Your task to perform on an android device: search for starred emails in the gmail app Image 0: 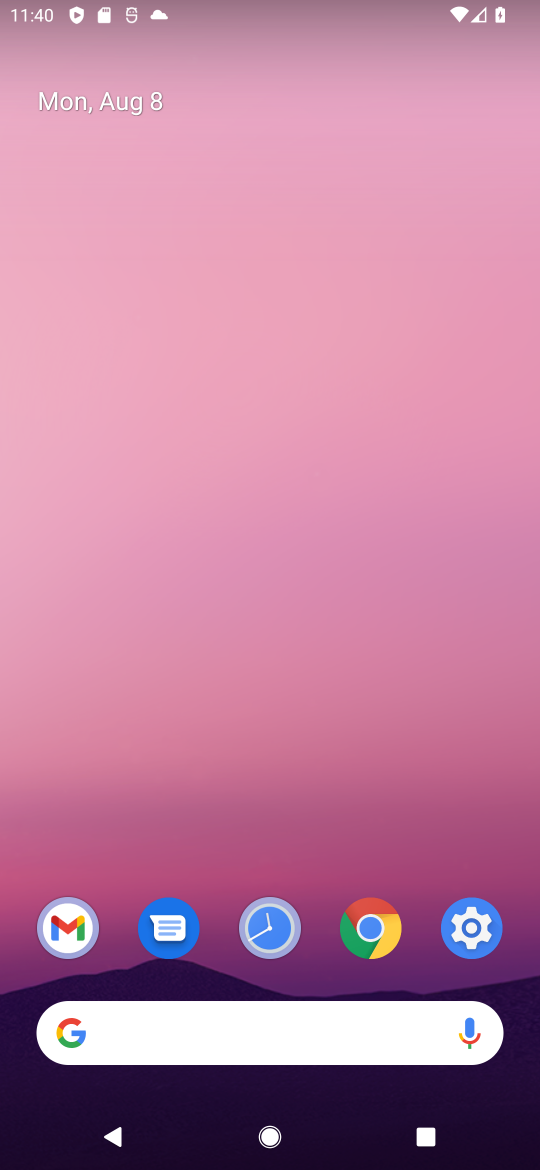
Step 0: click (46, 915)
Your task to perform on an android device: search for starred emails in the gmail app Image 1: 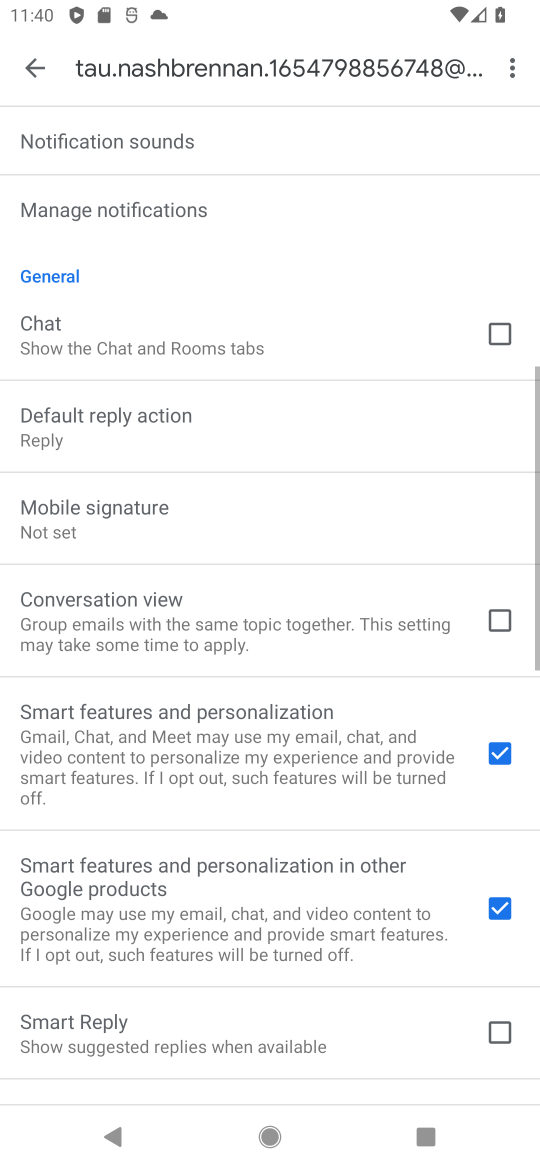
Step 1: click (45, 84)
Your task to perform on an android device: search for starred emails in the gmail app Image 2: 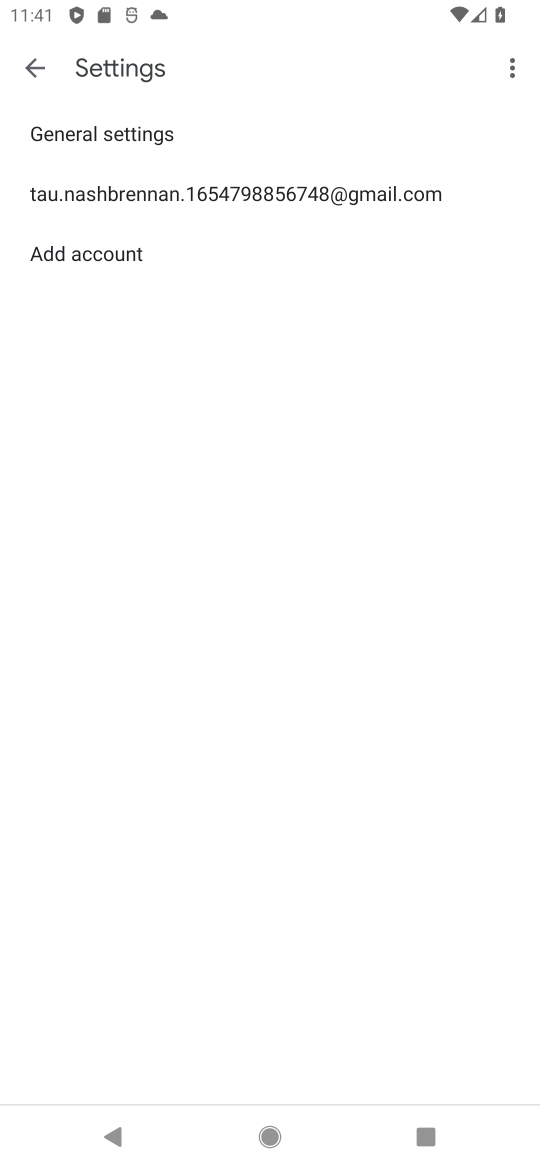
Step 2: click (31, 64)
Your task to perform on an android device: search for starred emails in the gmail app Image 3: 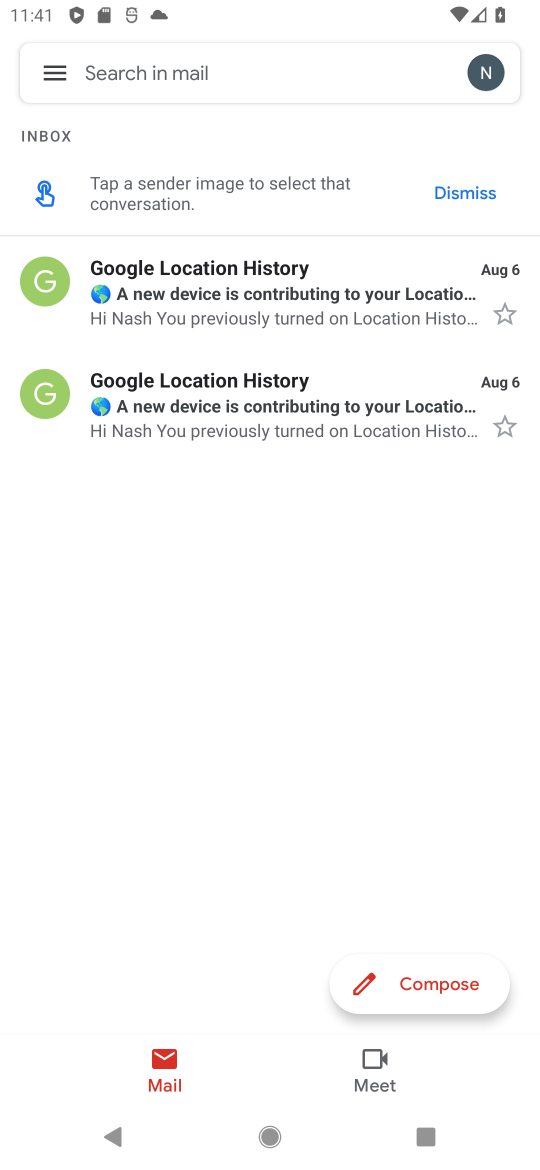
Step 3: click (51, 73)
Your task to perform on an android device: search for starred emails in the gmail app Image 4: 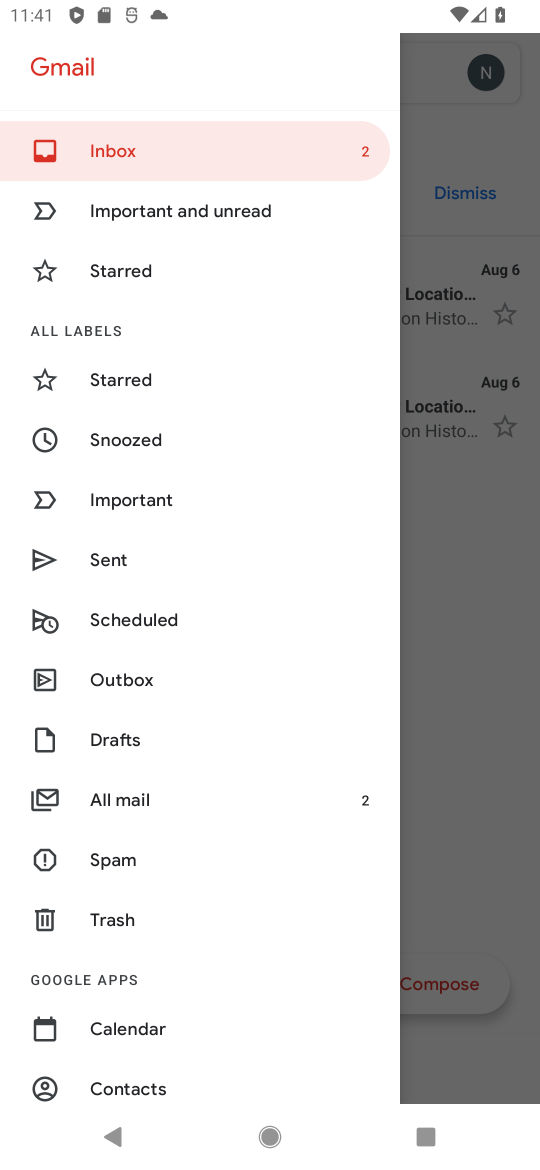
Step 4: click (139, 275)
Your task to perform on an android device: search for starred emails in the gmail app Image 5: 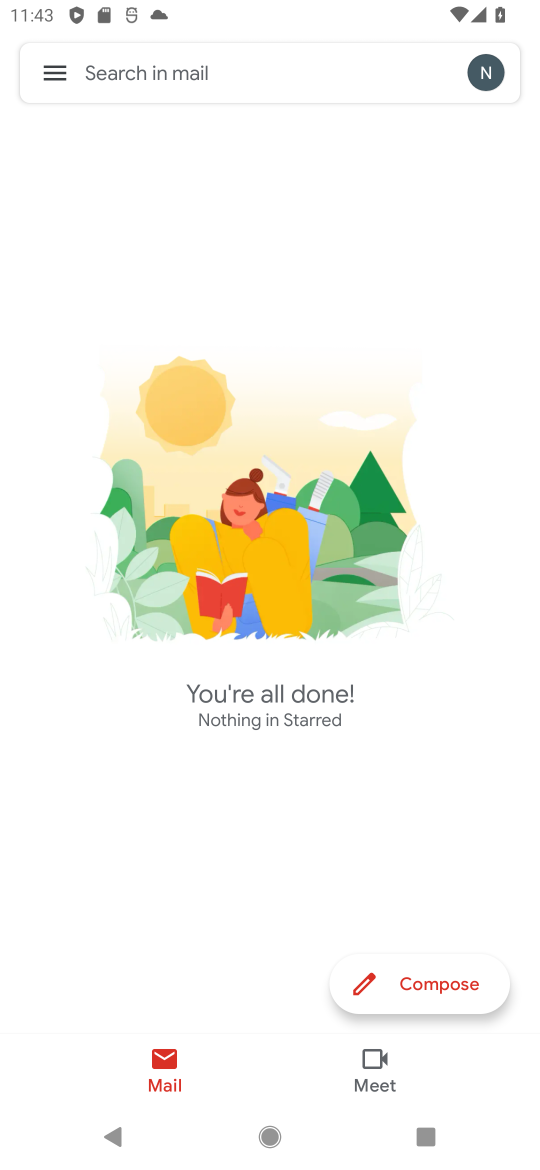
Step 5: task complete